Your task to perform on an android device: make emails show in primary in the gmail app Image 0: 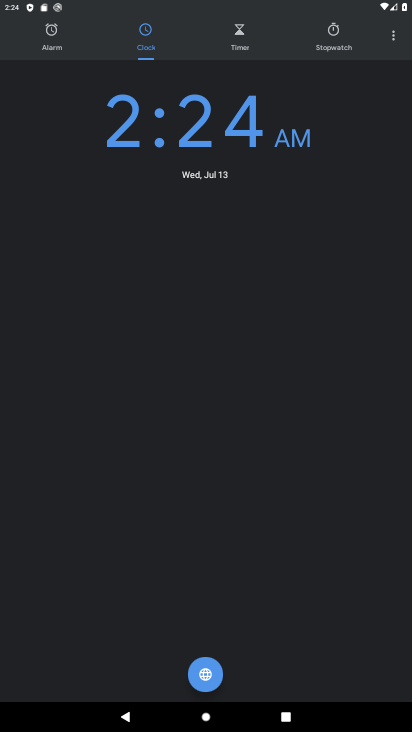
Step 0: press home button
Your task to perform on an android device: make emails show in primary in the gmail app Image 1: 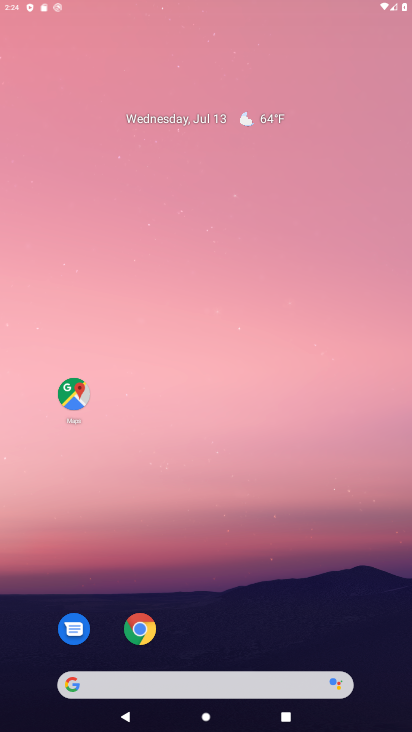
Step 1: drag from (164, 212) to (189, 6)
Your task to perform on an android device: make emails show in primary in the gmail app Image 2: 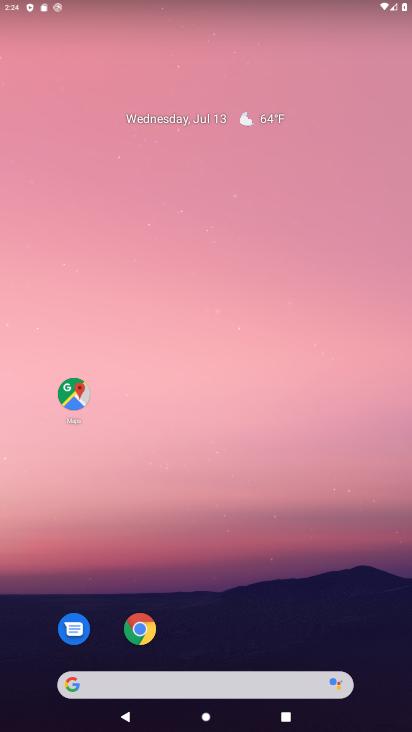
Step 2: drag from (235, 665) to (238, 7)
Your task to perform on an android device: make emails show in primary in the gmail app Image 3: 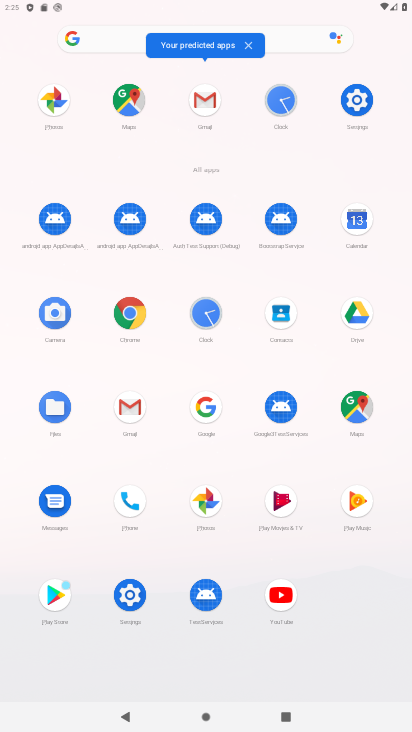
Step 3: click (138, 403)
Your task to perform on an android device: make emails show in primary in the gmail app Image 4: 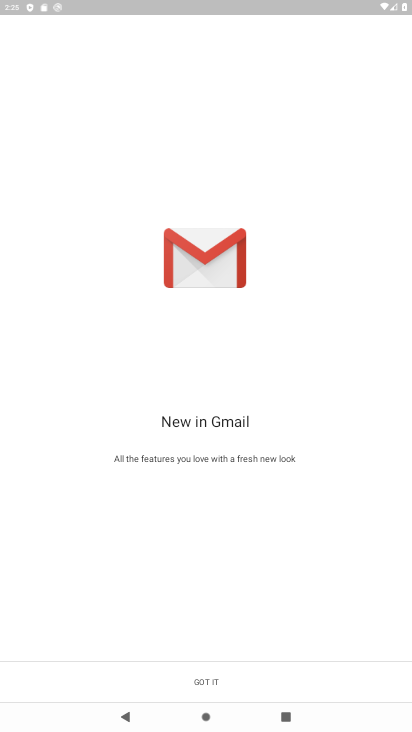
Step 4: click (244, 675)
Your task to perform on an android device: make emails show in primary in the gmail app Image 5: 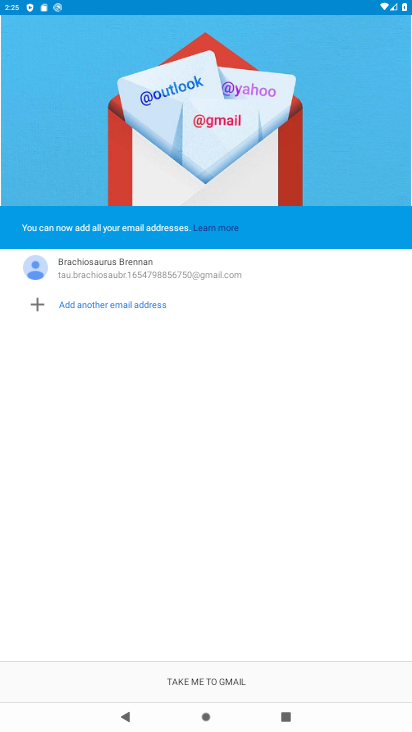
Step 5: click (244, 675)
Your task to perform on an android device: make emails show in primary in the gmail app Image 6: 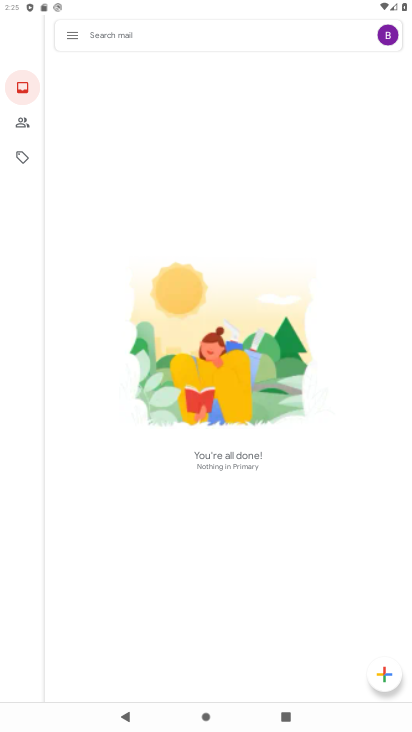
Step 6: click (75, 33)
Your task to perform on an android device: make emails show in primary in the gmail app Image 7: 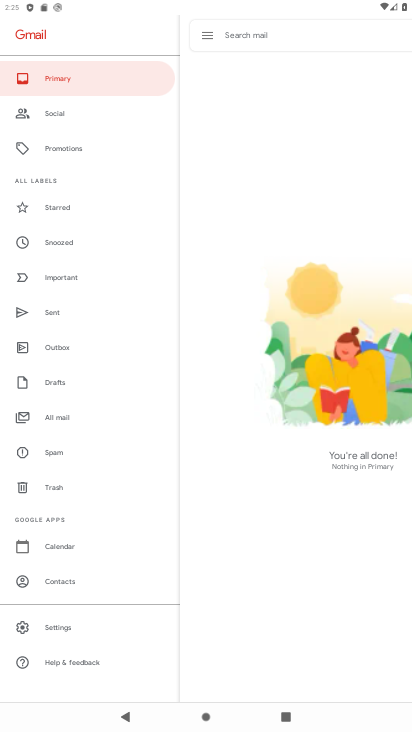
Step 7: task complete